Your task to perform on an android device: Open Youtube and go to "Your channel" Image 0: 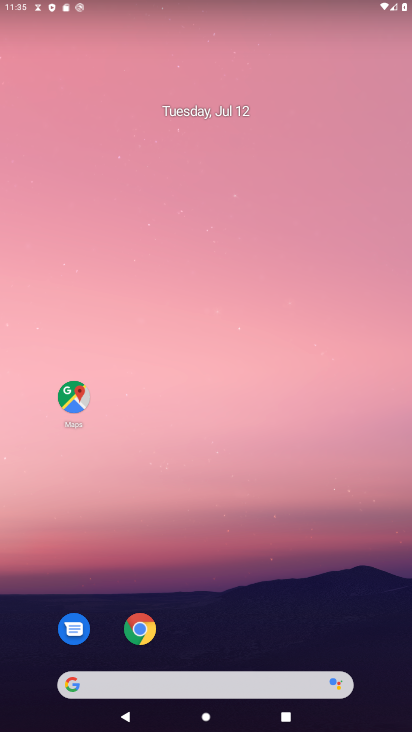
Step 0: drag from (296, 540) to (262, 65)
Your task to perform on an android device: Open Youtube and go to "Your channel" Image 1: 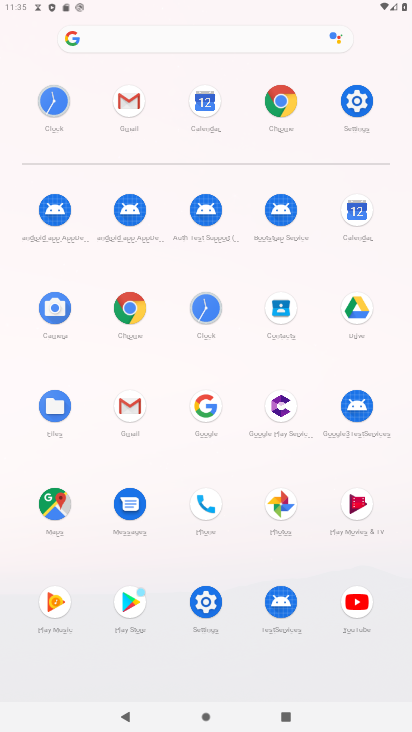
Step 1: click (358, 606)
Your task to perform on an android device: Open Youtube and go to "Your channel" Image 2: 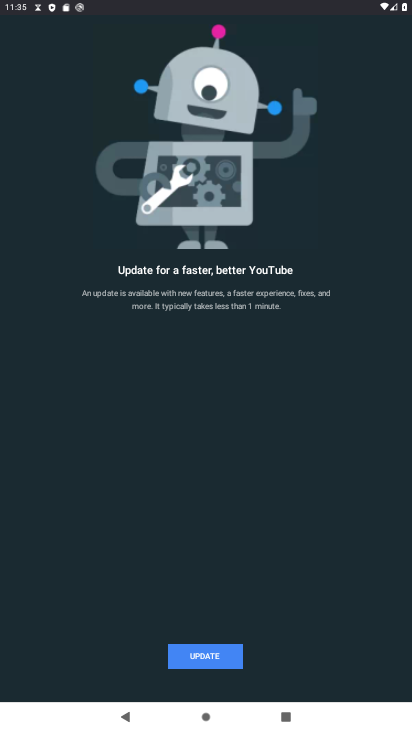
Step 2: click (198, 660)
Your task to perform on an android device: Open Youtube and go to "Your channel" Image 3: 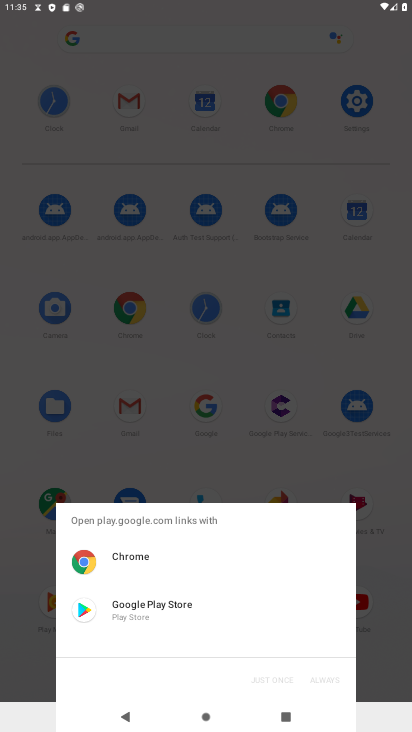
Step 3: click (136, 615)
Your task to perform on an android device: Open Youtube and go to "Your channel" Image 4: 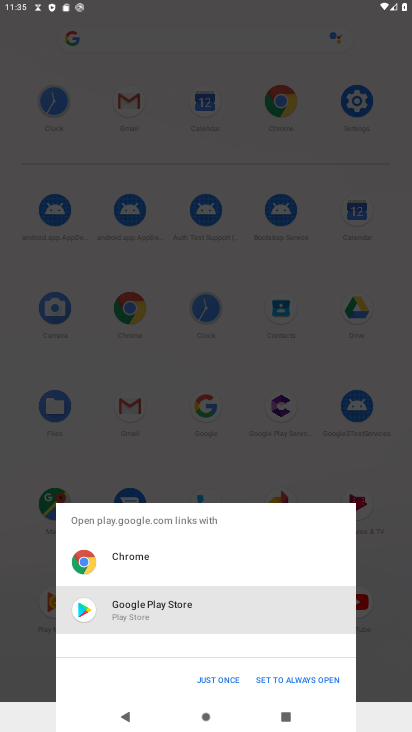
Step 4: click (203, 684)
Your task to perform on an android device: Open Youtube and go to "Your channel" Image 5: 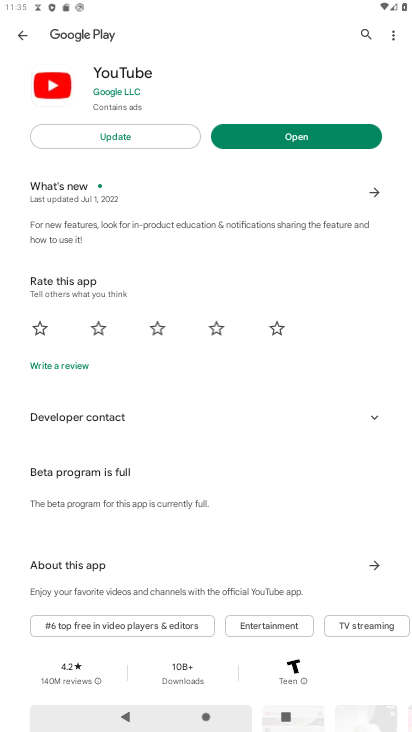
Step 5: click (111, 135)
Your task to perform on an android device: Open Youtube and go to "Your channel" Image 6: 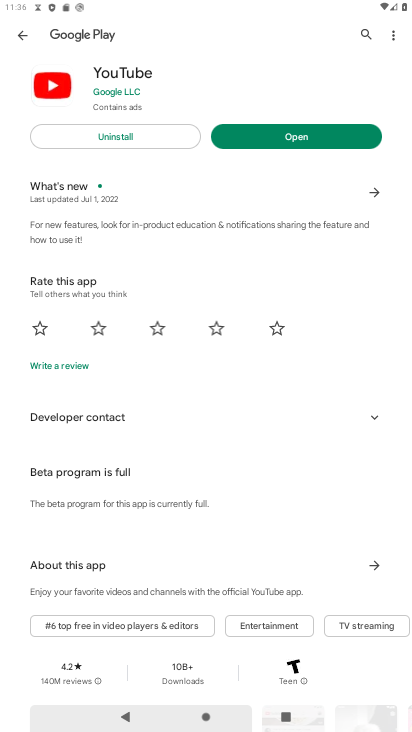
Step 6: click (256, 132)
Your task to perform on an android device: Open Youtube and go to "Your channel" Image 7: 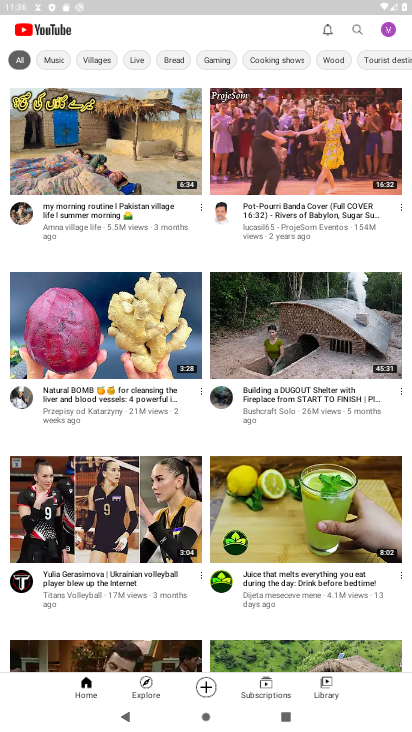
Step 7: task complete